Your task to perform on an android device: change the clock display to digital Image 0: 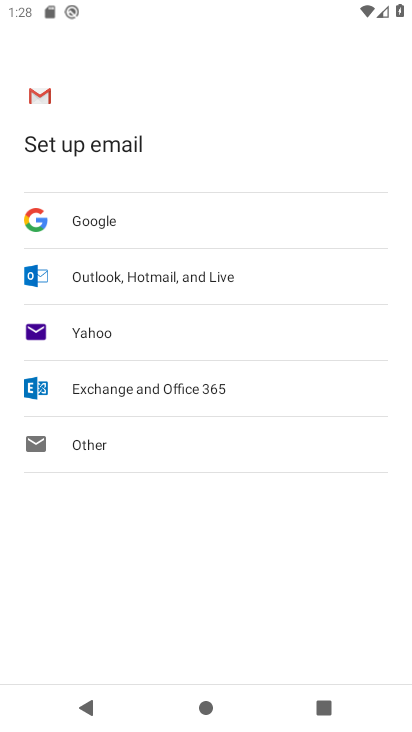
Step 0: press home button
Your task to perform on an android device: change the clock display to digital Image 1: 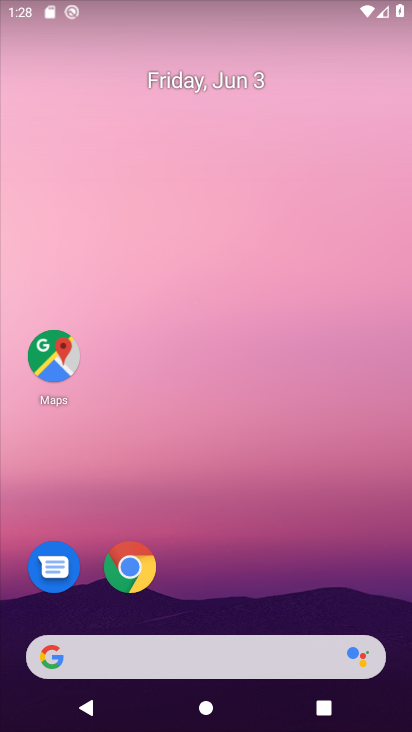
Step 1: drag from (157, 605) to (108, 263)
Your task to perform on an android device: change the clock display to digital Image 2: 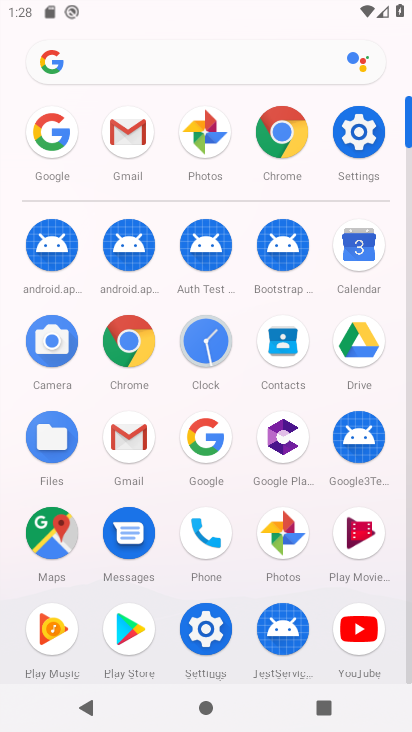
Step 2: click (199, 346)
Your task to perform on an android device: change the clock display to digital Image 3: 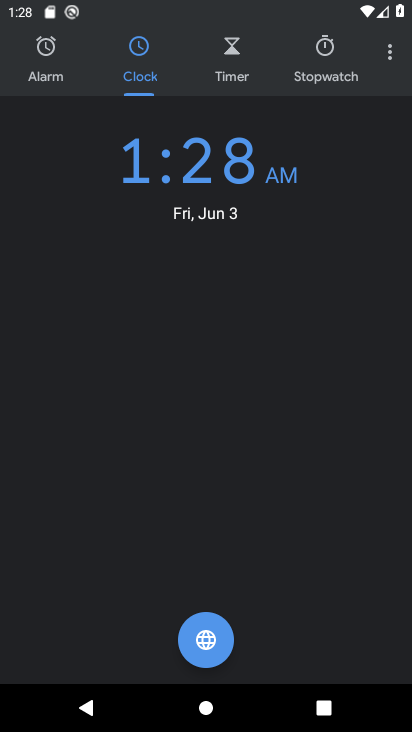
Step 3: click (392, 51)
Your task to perform on an android device: change the clock display to digital Image 4: 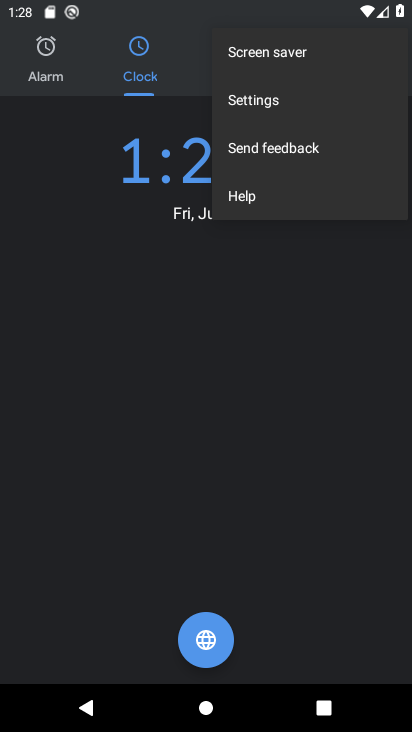
Step 4: click (243, 102)
Your task to perform on an android device: change the clock display to digital Image 5: 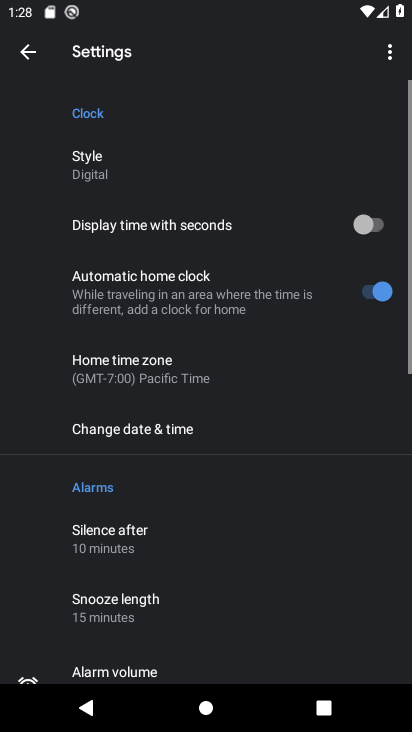
Step 5: click (130, 170)
Your task to perform on an android device: change the clock display to digital Image 6: 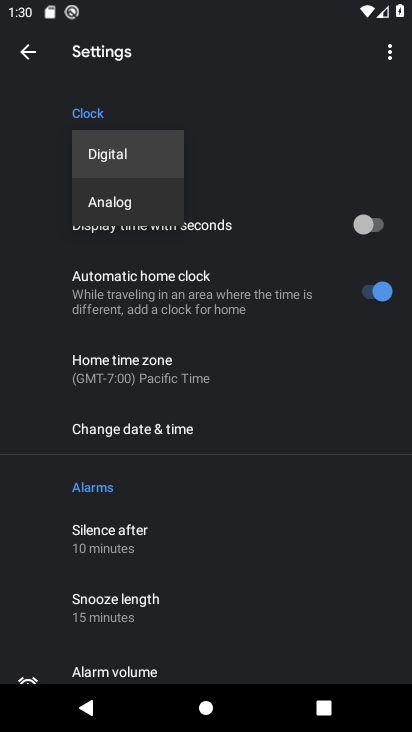
Step 6: task complete